Your task to perform on an android device: Show me popular videos on Youtube Image 0: 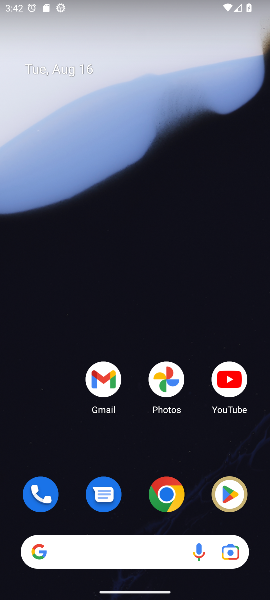
Step 0: drag from (167, 532) to (140, 28)
Your task to perform on an android device: Show me popular videos on Youtube Image 1: 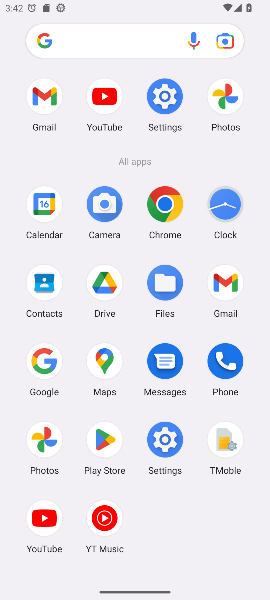
Step 1: click (39, 524)
Your task to perform on an android device: Show me popular videos on Youtube Image 2: 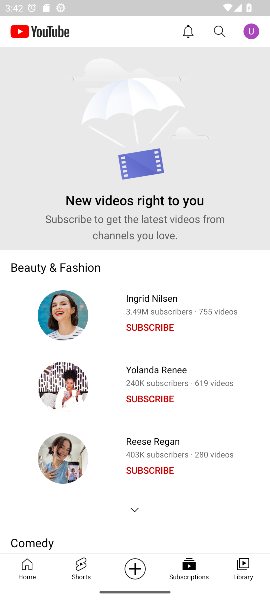
Step 2: click (21, 567)
Your task to perform on an android device: Show me popular videos on Youtube Image 3: 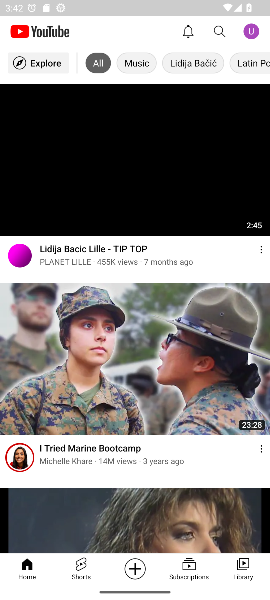
Step 3: click (30, 63)
Your task to perform on an android device: Show me popular videos on Youtube Image 4: 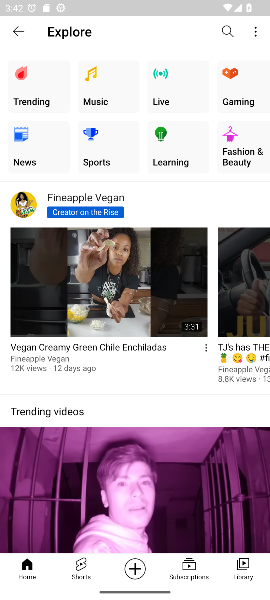
Step 4: click (31, 76)
Your task to perform on an android device: Show me popular videos on Youtube Image 5: 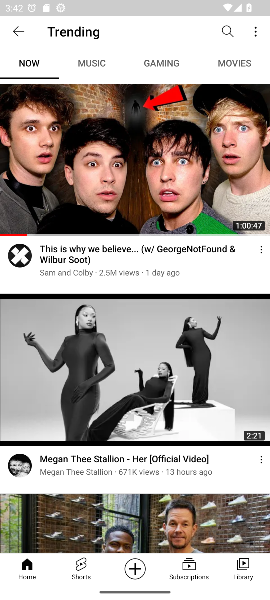
Step 5: task complete